Your task to perform on an android device: Open Google Chrome and click the shortcut for Amazon.com Image 0: 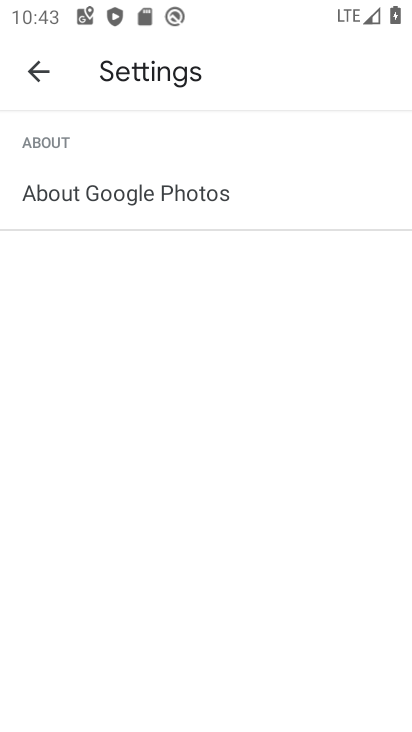
Step 0: press home button
Your task to perform on an android device: Open Google Chrome and click the shortcut for Amazon.com Image 1: 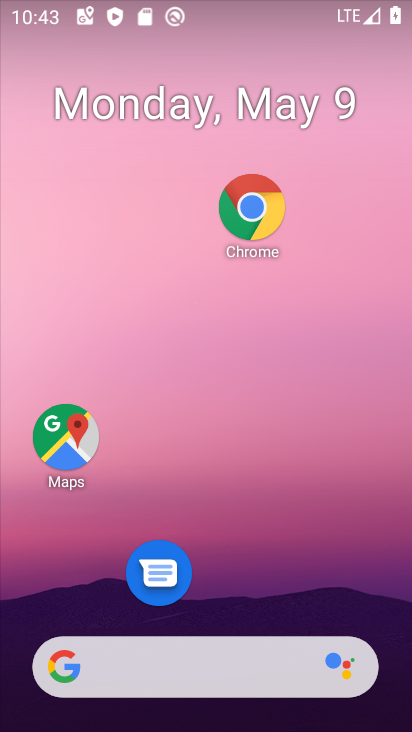
Step 1: drag from (152, 508) to (203, 37)
Your task to perform on an android device: Open Google Chrome and click the shortcut for Amazon.com Image 2: 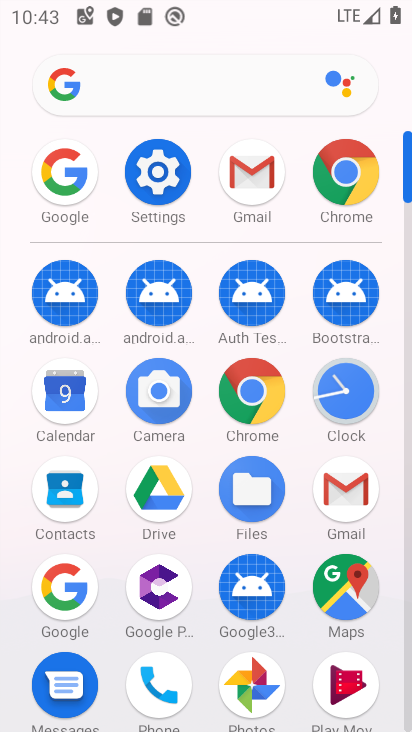
Step 2: click (240, 395)
Your task to perform on an android device: Open Google Chrome and click the shortcut for Amazon.com Image 3: 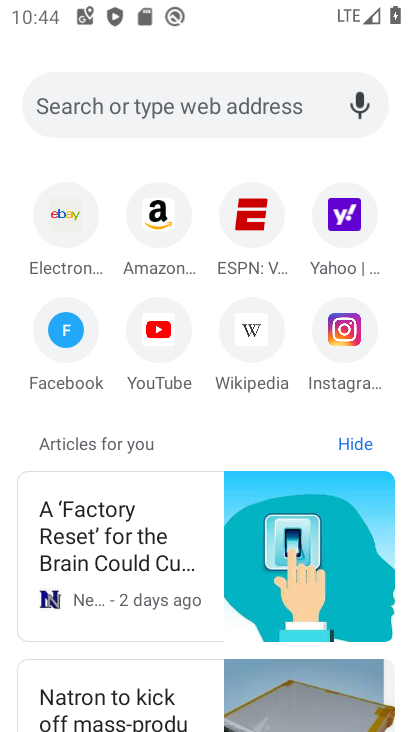
Step 3: click (158, 219)
Your task to perform on an android device: Open Google Chrome and click the shortcut for Amazon.com Image 4: 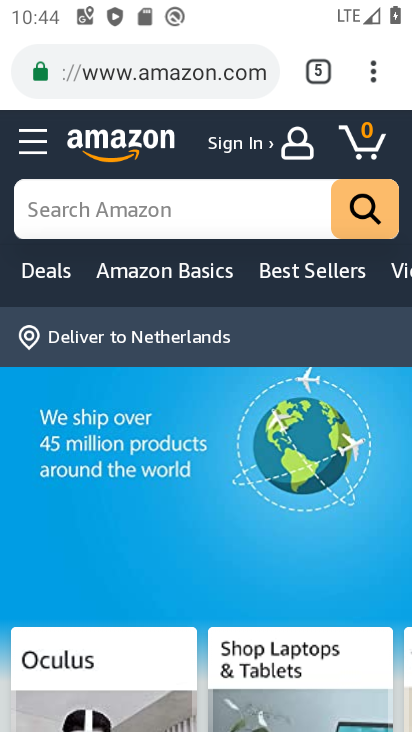
Step 4: task complete